Your task to perform on an android device: Go to Android settings Image 0: 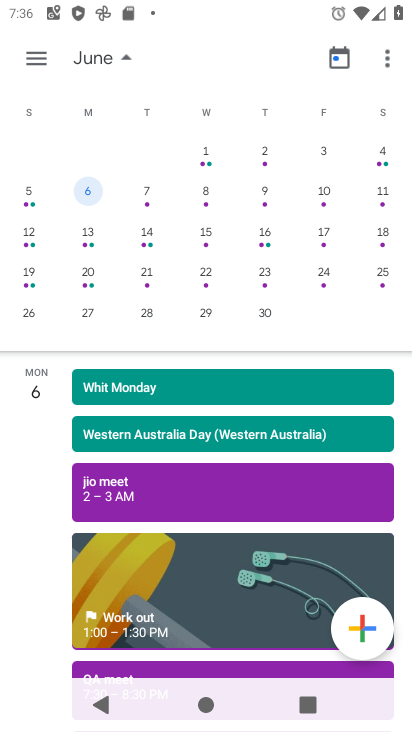
Step 0: press home button
Your task to perform on an android device: Go to Android settings Image 1: 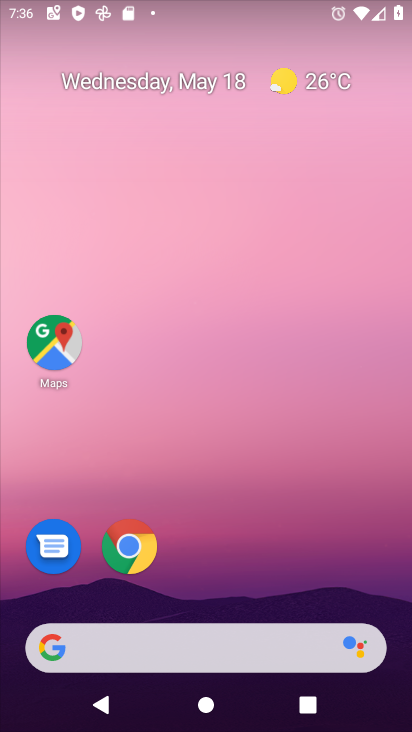
Step 1: drag from (388, 617) to (258, 107)
Your task to perform on an android device: Go to Android settings Image 2: 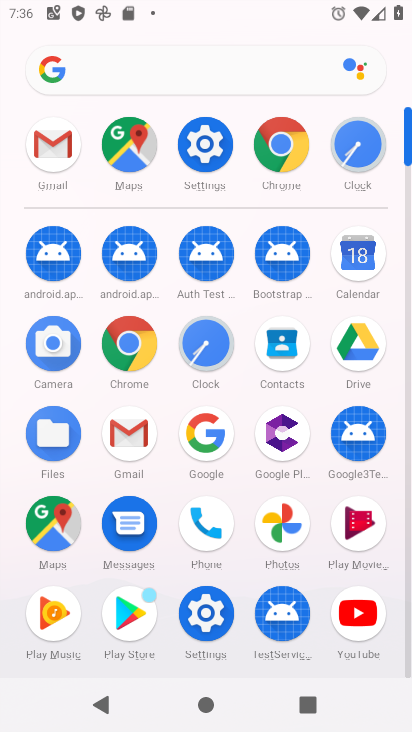
Step 2: click (219, 624)
Your task to perform on an android device: Go to Android settings Image 3: 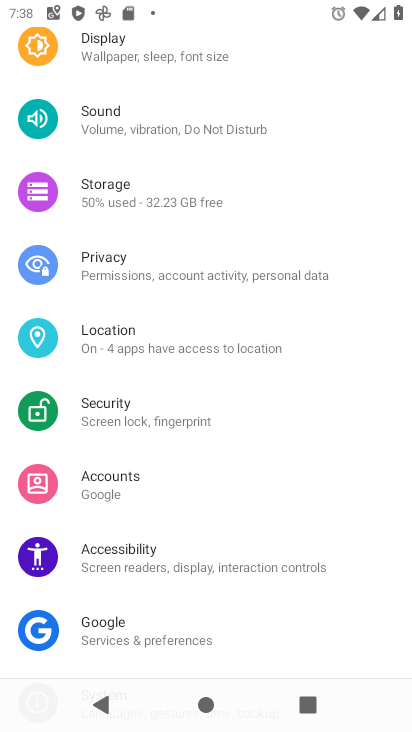
Step 3: drag from (248, 620) to (276, 72)
Your task to perform on an android device: Go to Android settings Image 4: 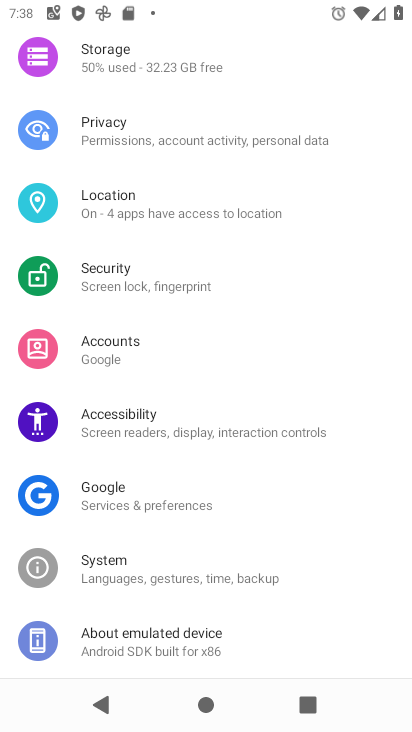
Step 4: click (267, 643)
Your task to perform on an android device: Go to Android settings Image 5: 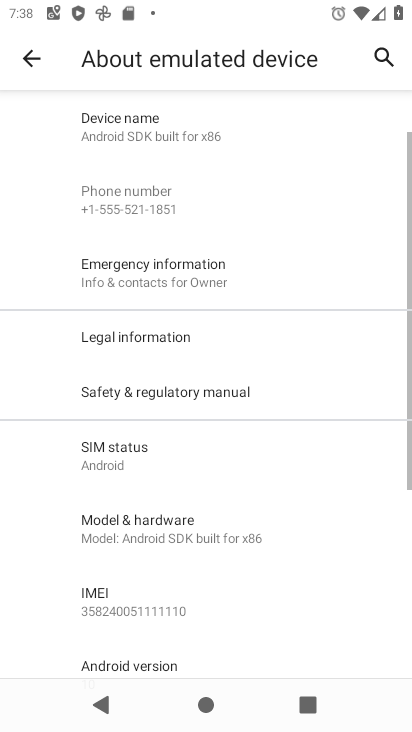
Step 5: click (143, 653)
Your task to perform on an android device: Go to Android settings Image 6: 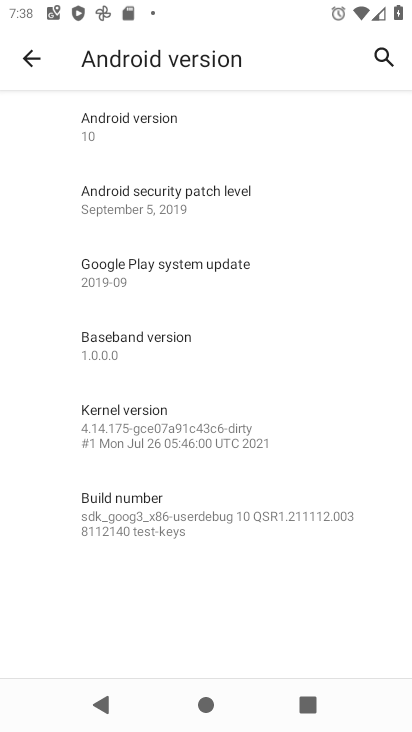
Step 6: task complete